Your task to perform on an android device: Go to Google maps Image 0: 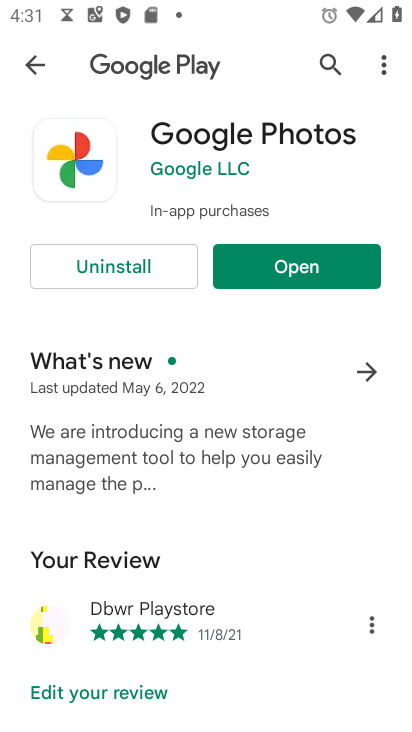
Step 0: drag from (238, 558) to (194, 230)
Your task to perform on an android device: Go to Google maps Image 1: 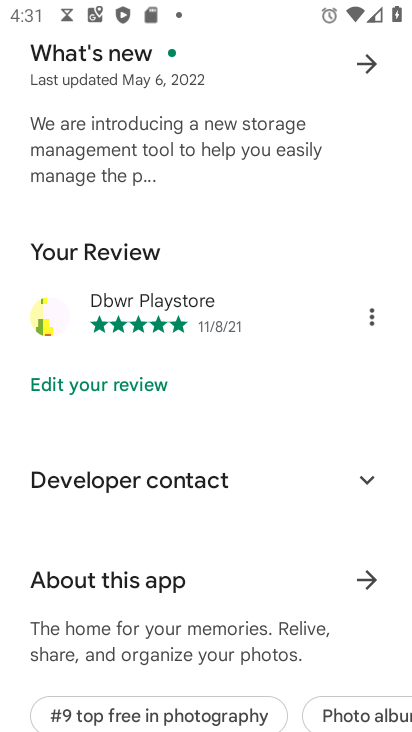
Step 1: press home button
Your task to perform on an android device: Go to Google maps Image 2: 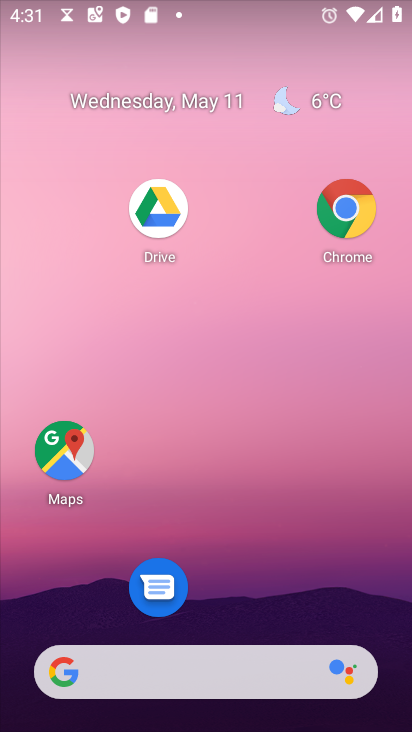
Step 2: click (53, 451)
Your task to perform on an android device: Go to Google maps Image 3: 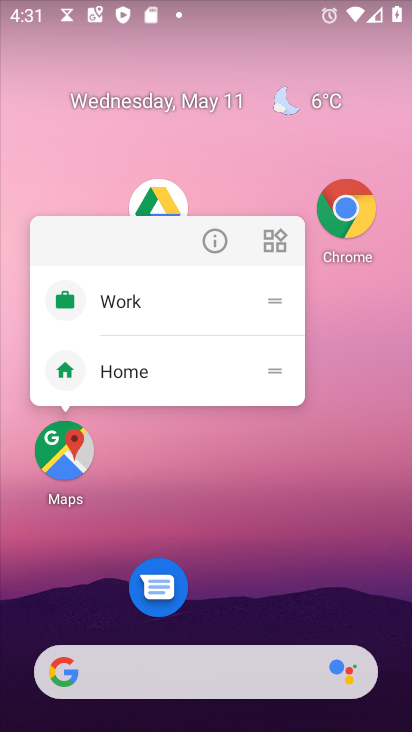
Step 3: click (57, 432)
Your task to perform on an android device: Go to Google maps Image 4: 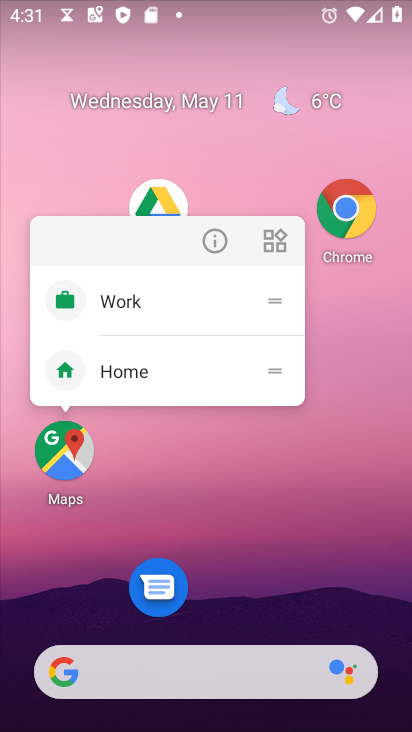
Step 4: click (65, 479)
Your task to perform on an android device: Go to Google maps Image 5: 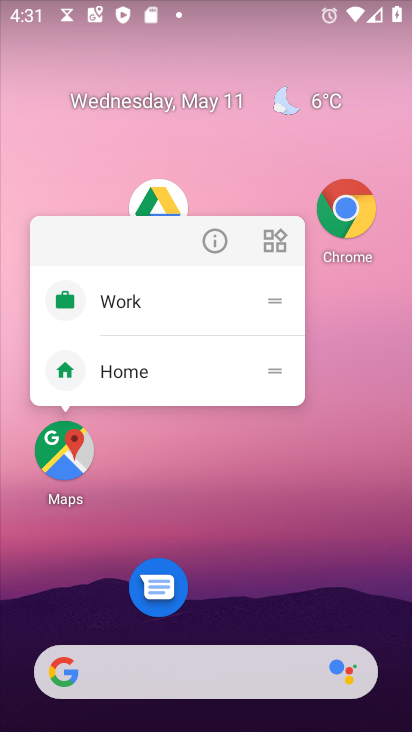
Step 5: click (64, 472)
Your task to perform on an android device: Go to Google maps Image 6: 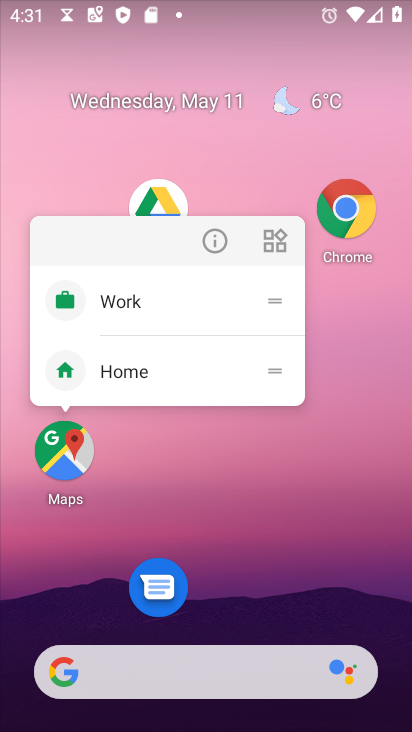
Step 6: click (64, 472)
Your task to perform on an android device: Go to Google maps Image 7: 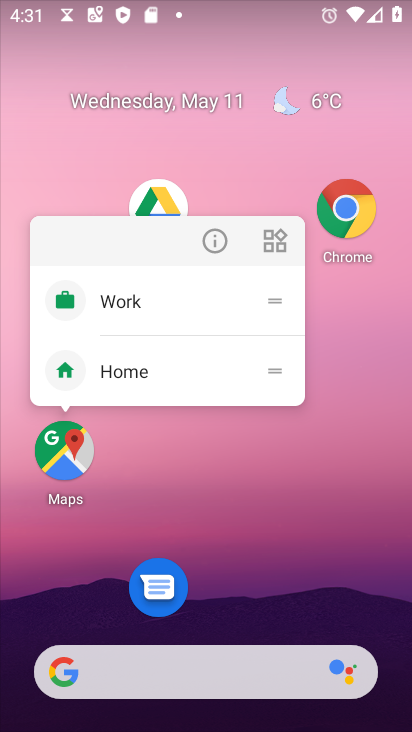
Step 7: click (56, 455)
Your task to perform on an android device: Go to Google maps Image 8: 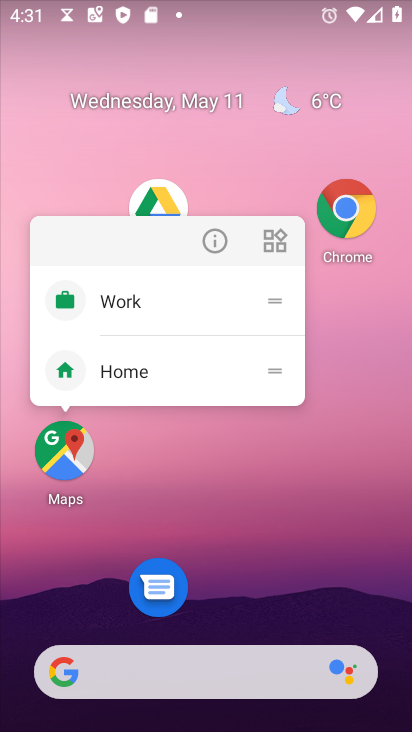
Step 8: click (54, 453)
Your task to perform on an android device: Go to Google maps Image 9: 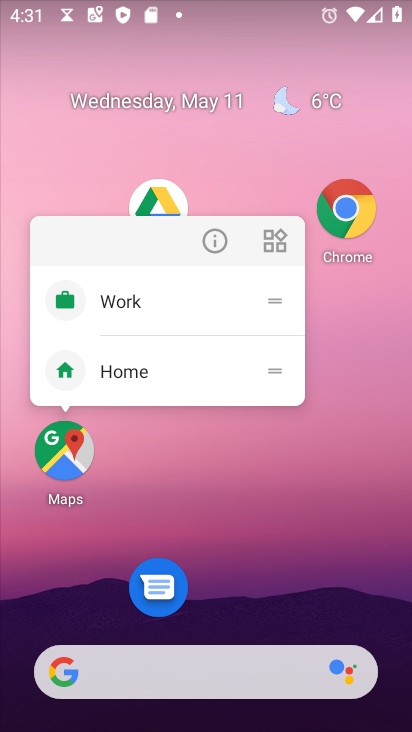
Step 9: click (54, 453)
Your task to perform on an android device: Go to Google maps Image 10: 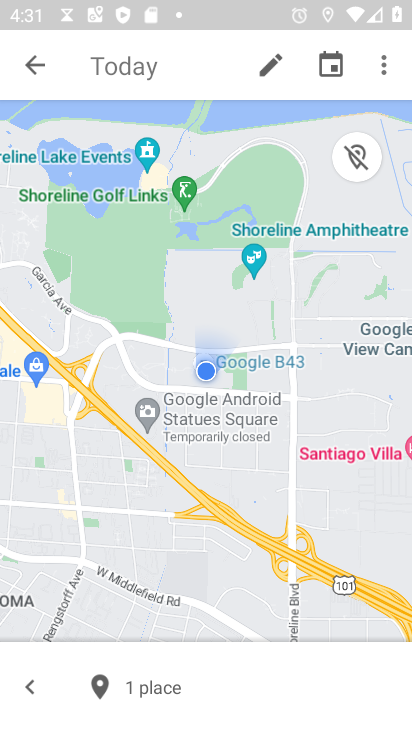
Step 10: task complete